Your task to perform on an android device: Open network settings Image 0: 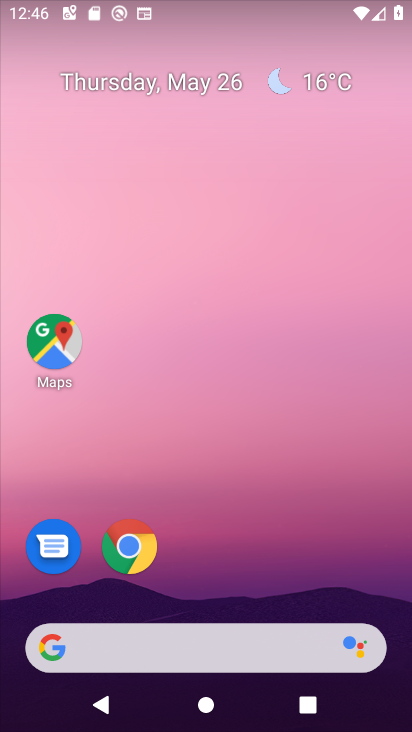
Step 0: drag from (267, 380) to (341, 186)
Your task to perform on an android device: Open network settings Image 1: 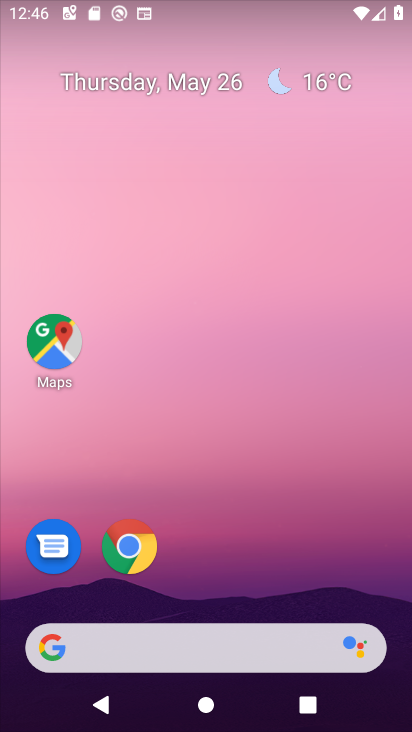
Step 1: drag from (190, 481) to (232, 131)
Your task to perform on an android device: Open network settings Image 2: 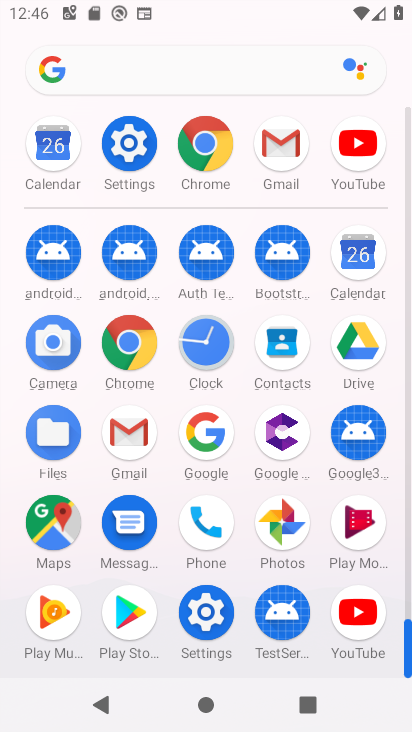
Step 2: click (121, 142)
Your task to perform on an android device: Open network settings Image 3: 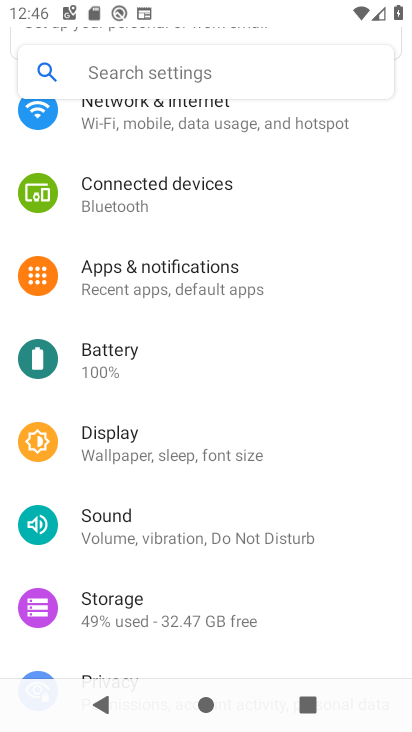
Step 3: click (184, 128)
Your task to perform on an android device: Open network settings Image 4: 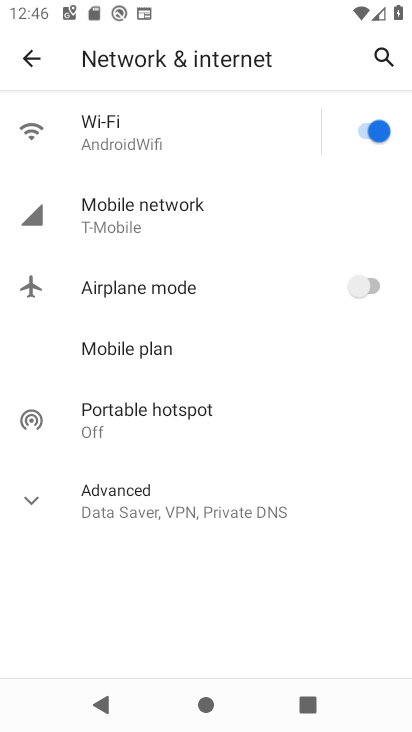
Step 4: task complete